Your task to perform on an android device: toggle airplane mode Image 0: 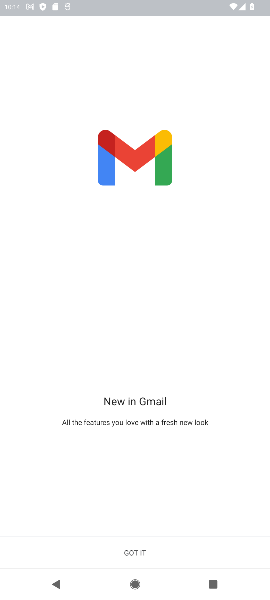
Step 0: press home button
Your task to perform on an android device: toggle airplane mode Image 1: 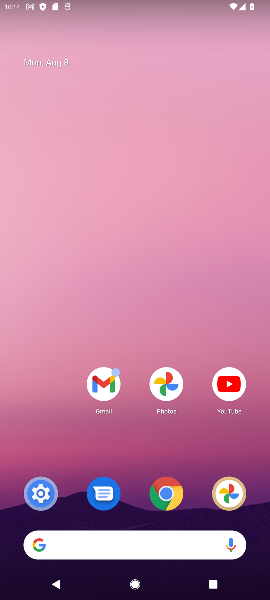
Step 1: drag from (128, 558) to (107, 180)
Your task to perform on an android device: toggle airplane mode Image 2: 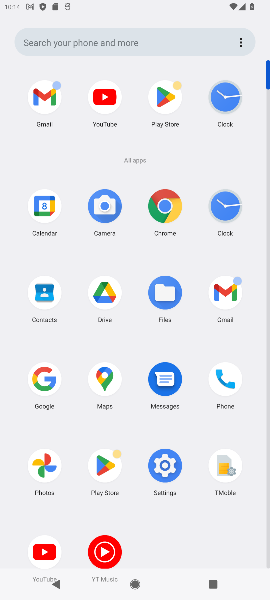
Step 2: click (173, 468)
Your task to perform on an android device: toggle airplane mode Image 3: 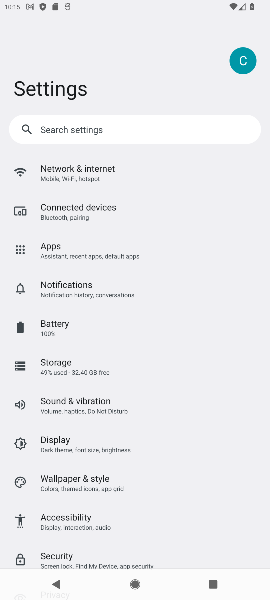
Step 3: click (117, 183)
Your task to perform on an android device: toggle airplane mode Image 4: 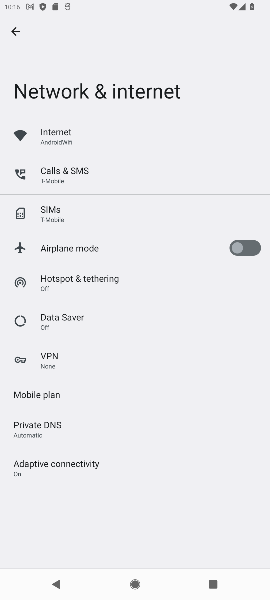
Step 4: click (110, 248)
Your task to perform on an android device: toggle airplane mode Image 5: 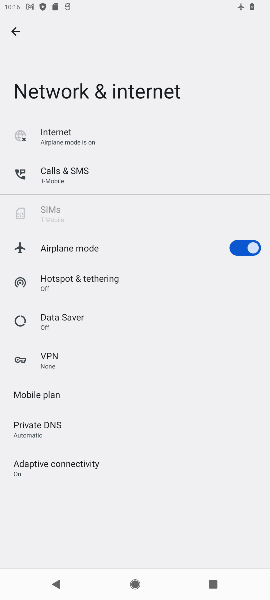
Step 5: task complete